Your task to perform on an android device: Add "lenovo thinkpad" to the cart on walmart Image 0: 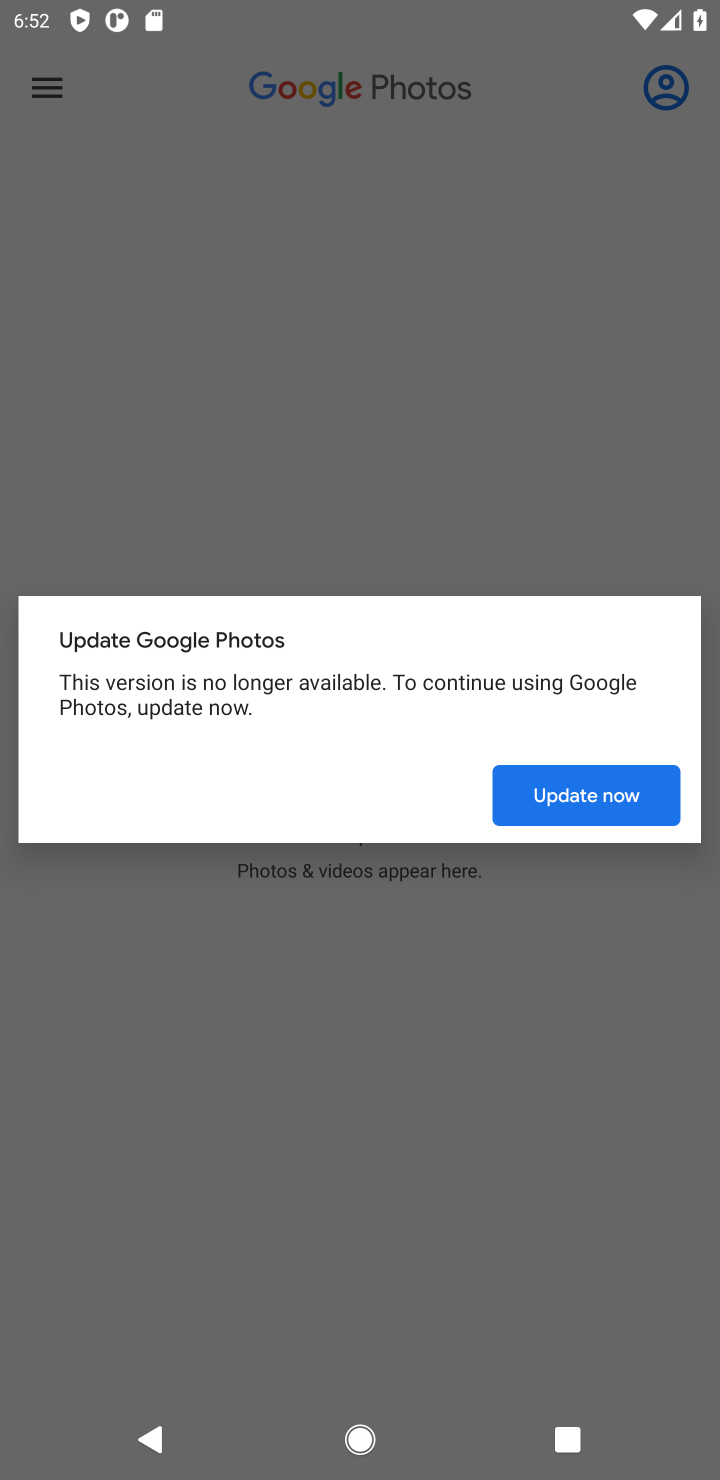
Step 0: press home button
Your task to perform on an android device: Add "lenovo thinkpad" to the cart on walmart Image 1: 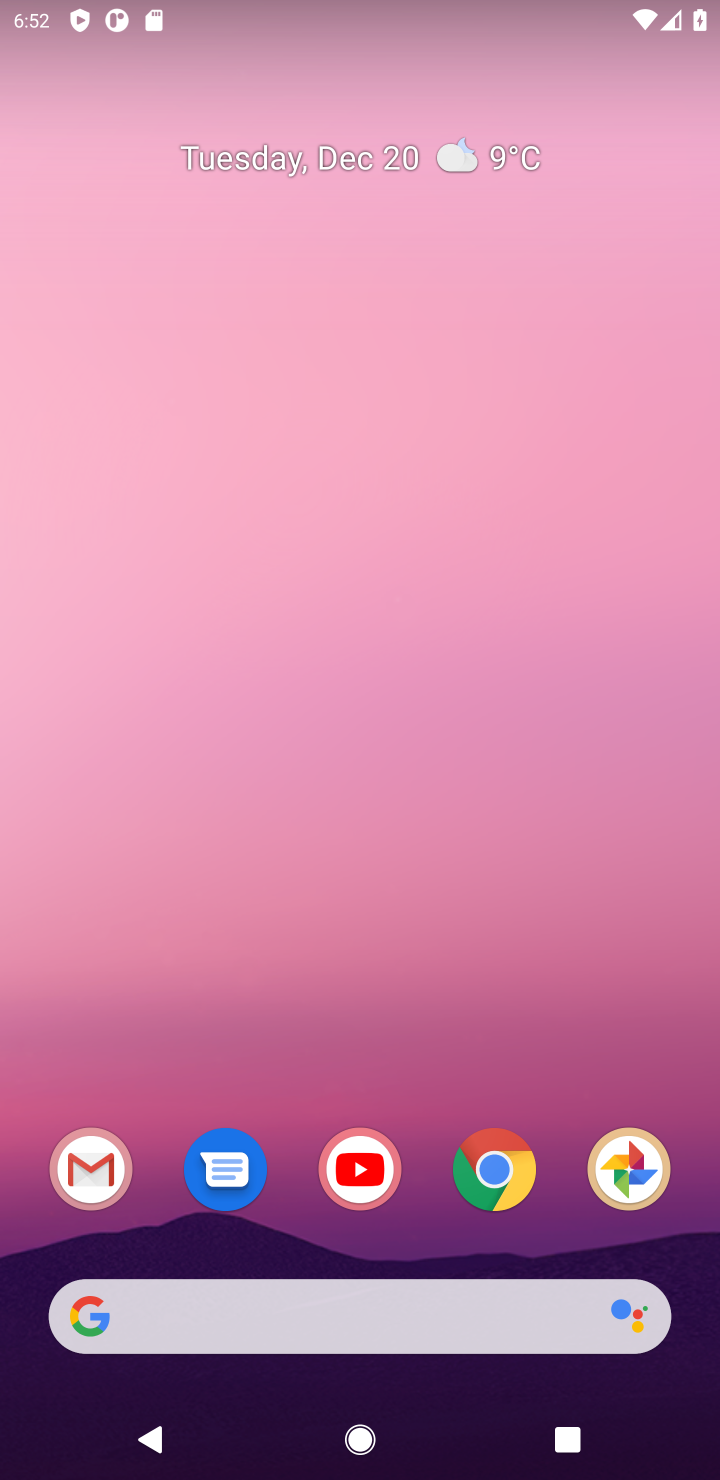
Step 1: click (510, 1208)
Your task to perform on an android device: Add "lenovo thinkpad" to the cart on walmart Image 2: 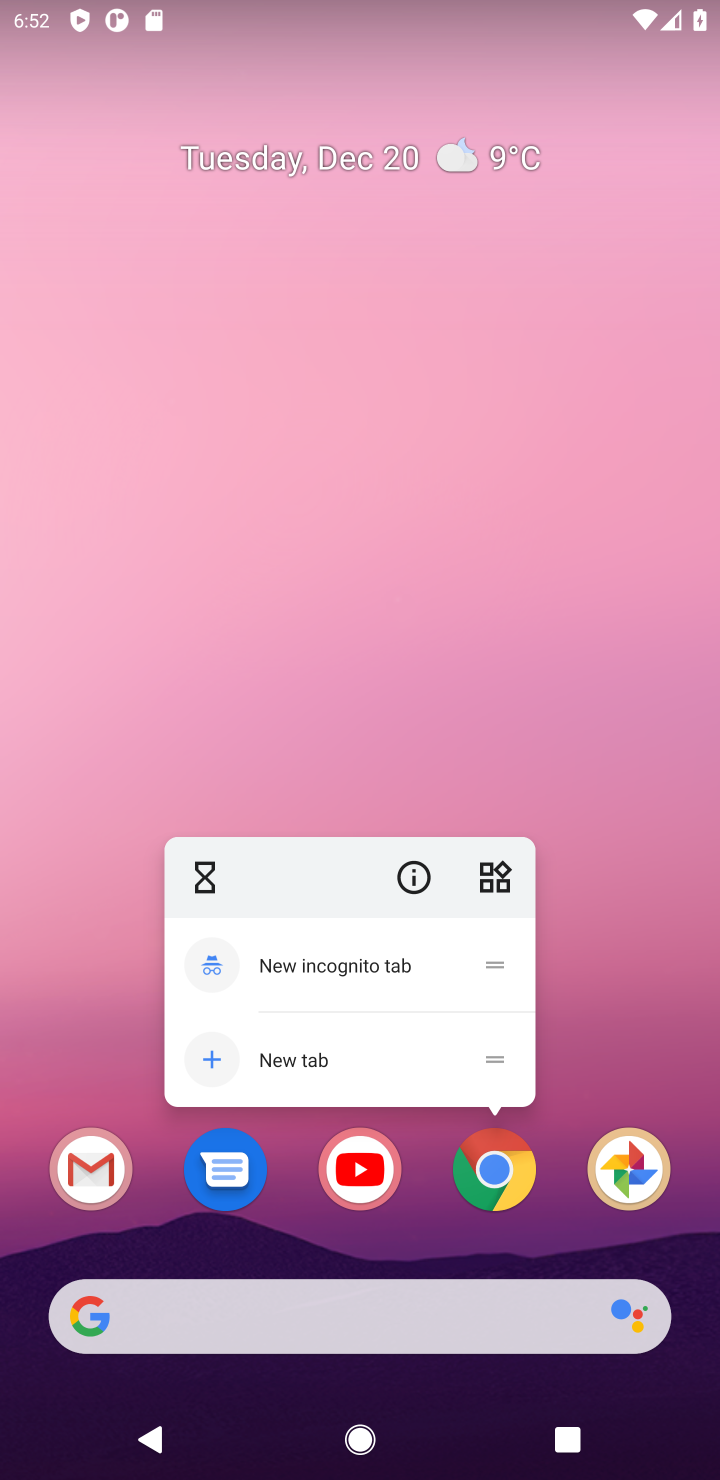
Step 2: click (480, 1171)
Your task to perform on an android device: Add "lenovo thinkpad" to the cart on walmart Image 3: 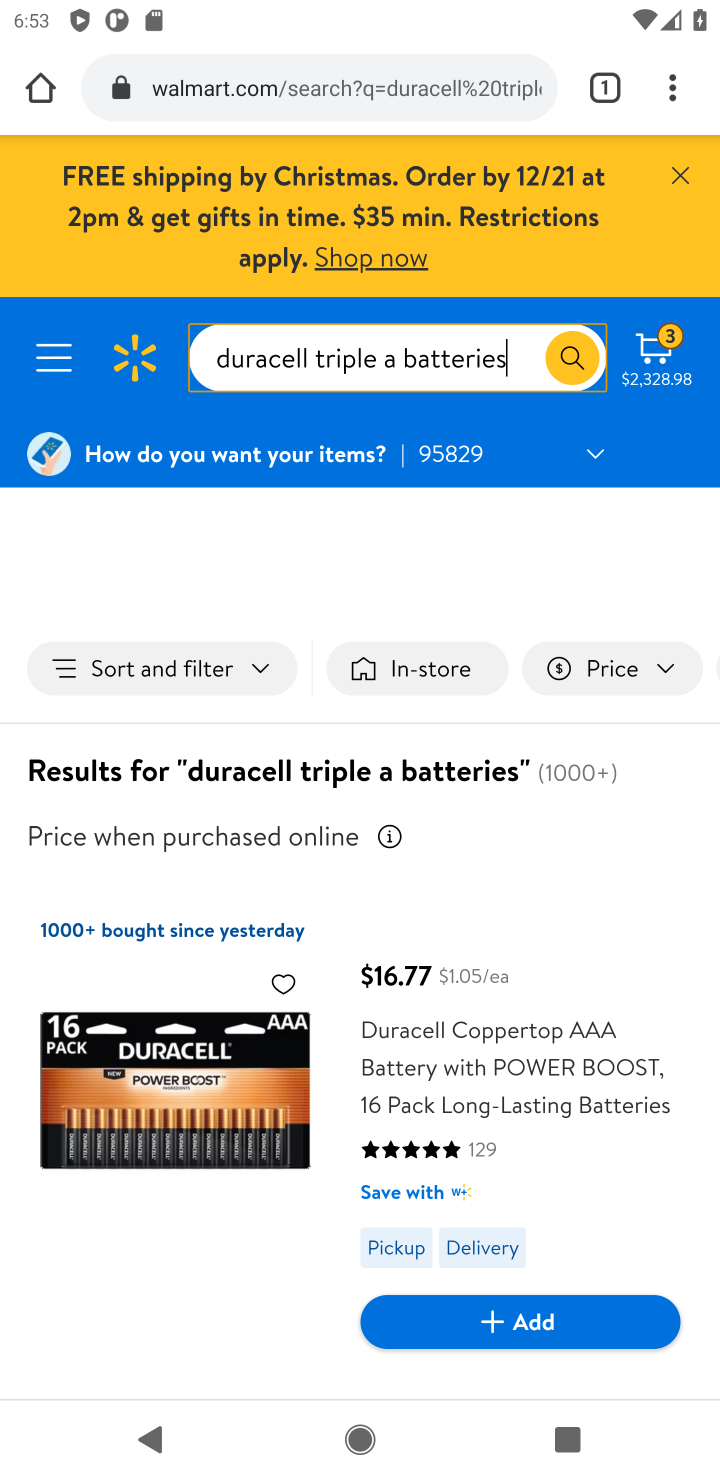
Step 3: click (449, 357)
Your task to perform on an android device: Add "lenovo thinkpad" to the cart on walmart Image 4: 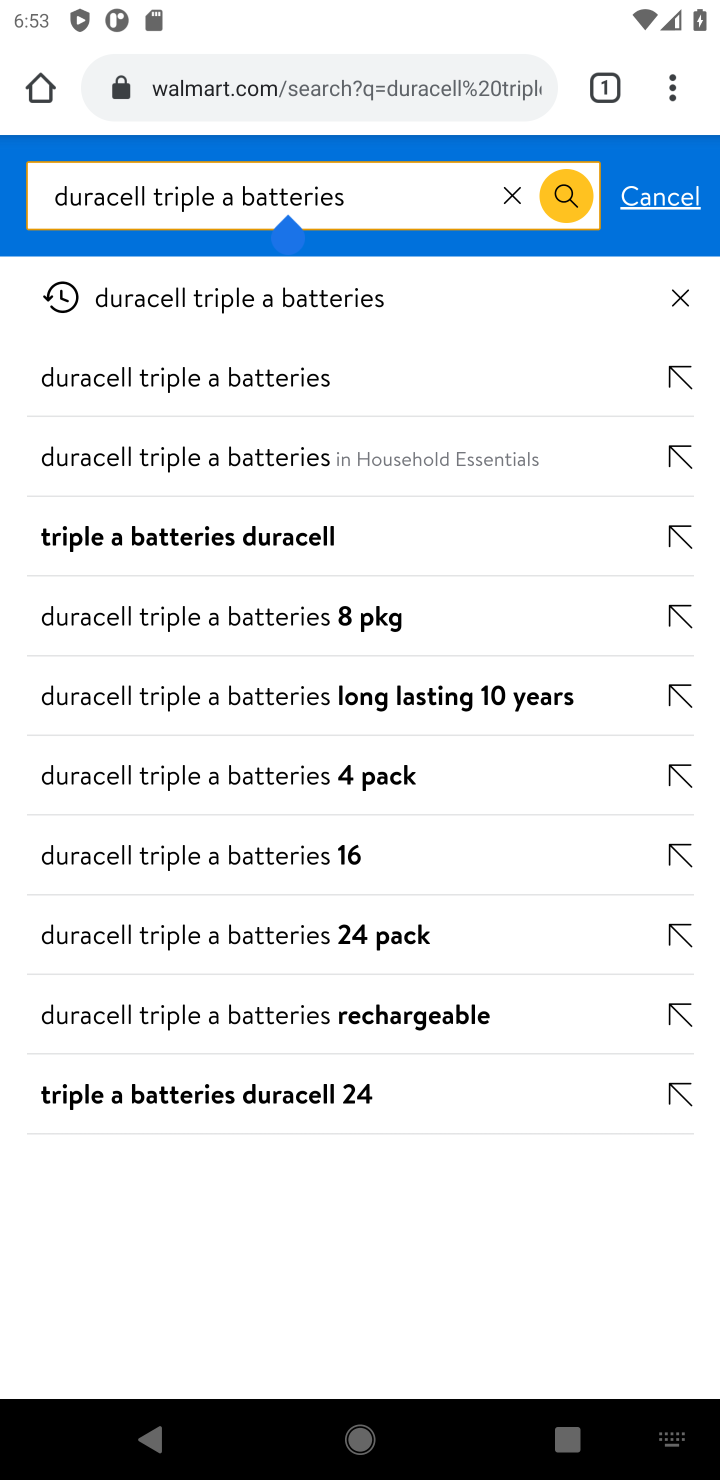
Step 4: click (499, 202)
Your task to perform on an android device: Add "lenovo thinkpad" to the cart on walmart Image 5: 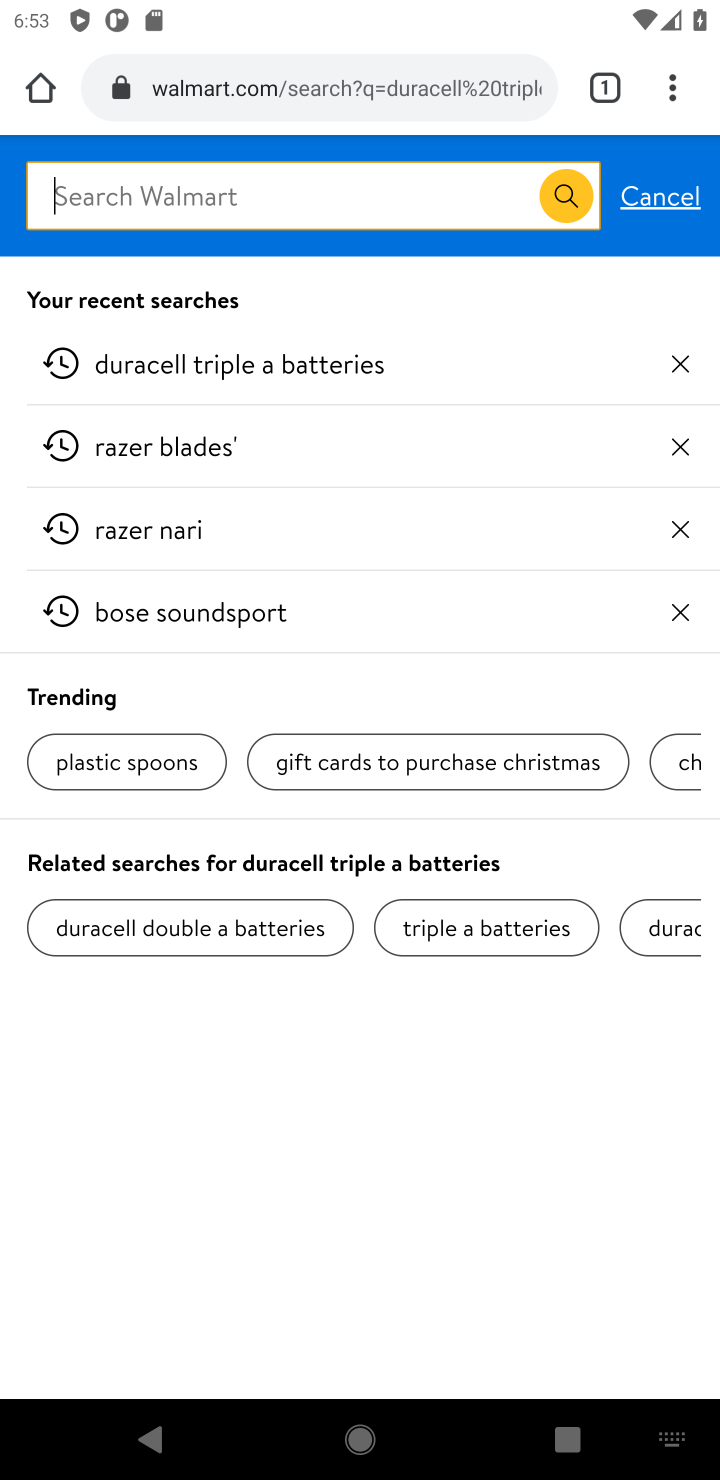
Step 5: type "lenovo thinkpad"
Your task to perform on an android device: Add "lenovo thinkpad" to the cart on walmart Image 6: 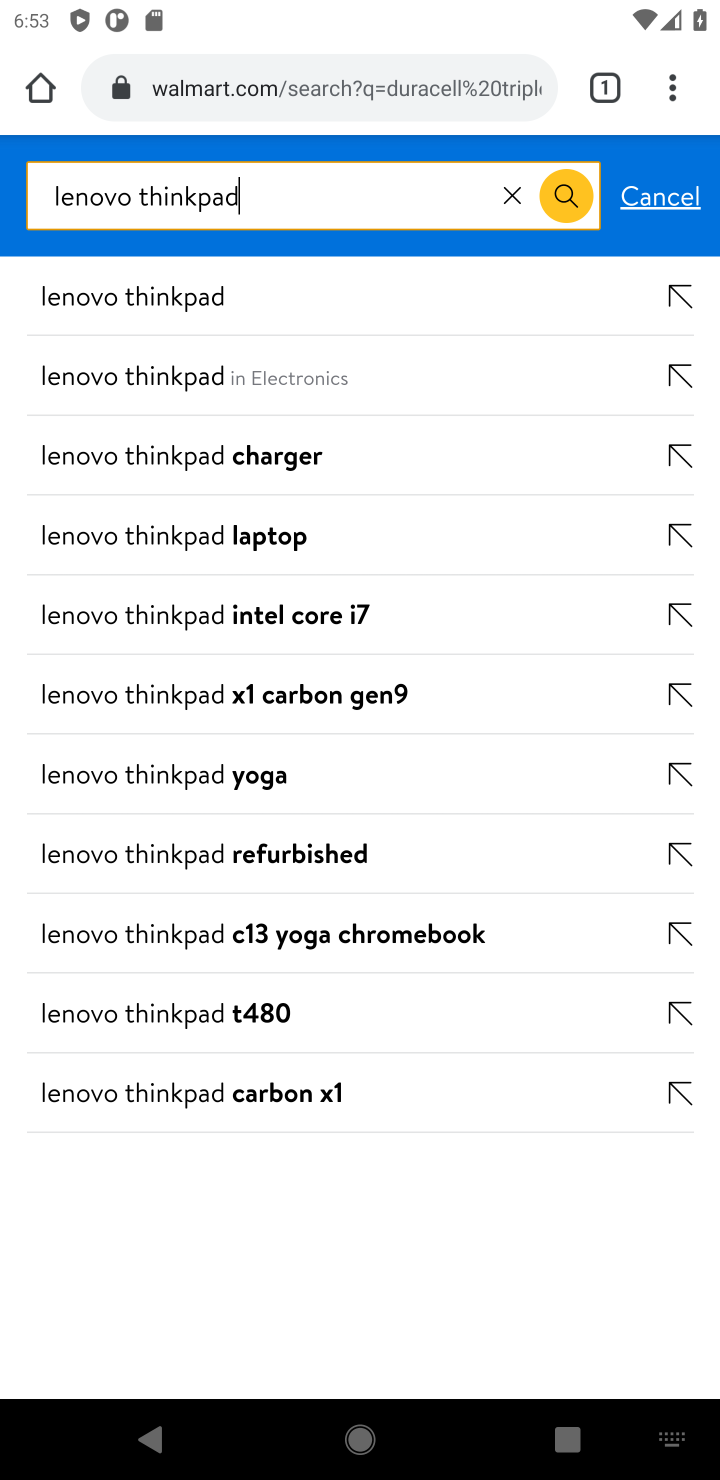
Step 6: click (187, 295)
Your task to perform on an android device: Add "lenovo thinkpad" to the cart on walmart Image 7: 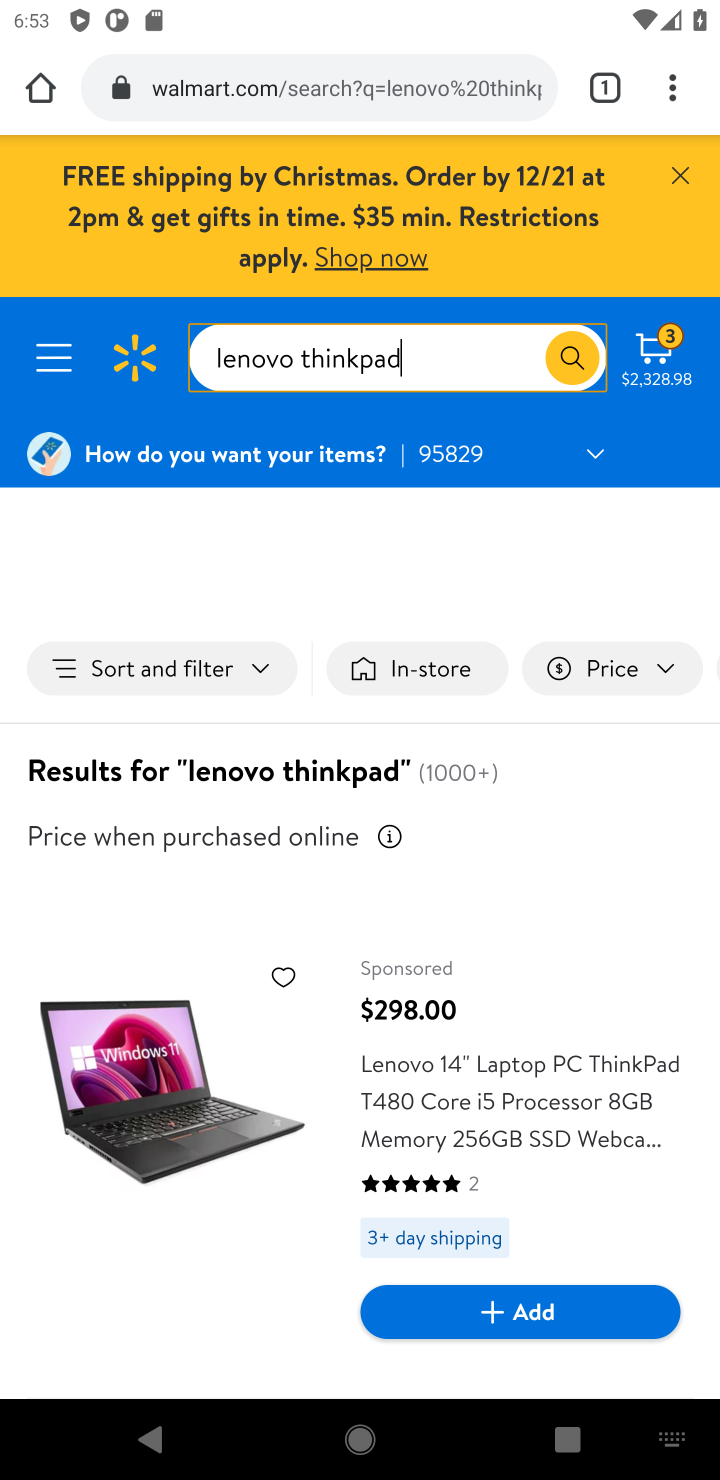
Step 7: click (557, 1333)
Your task to perform on an android device: Add "lenovo thinkpad" to the cart on walmart Image 8: 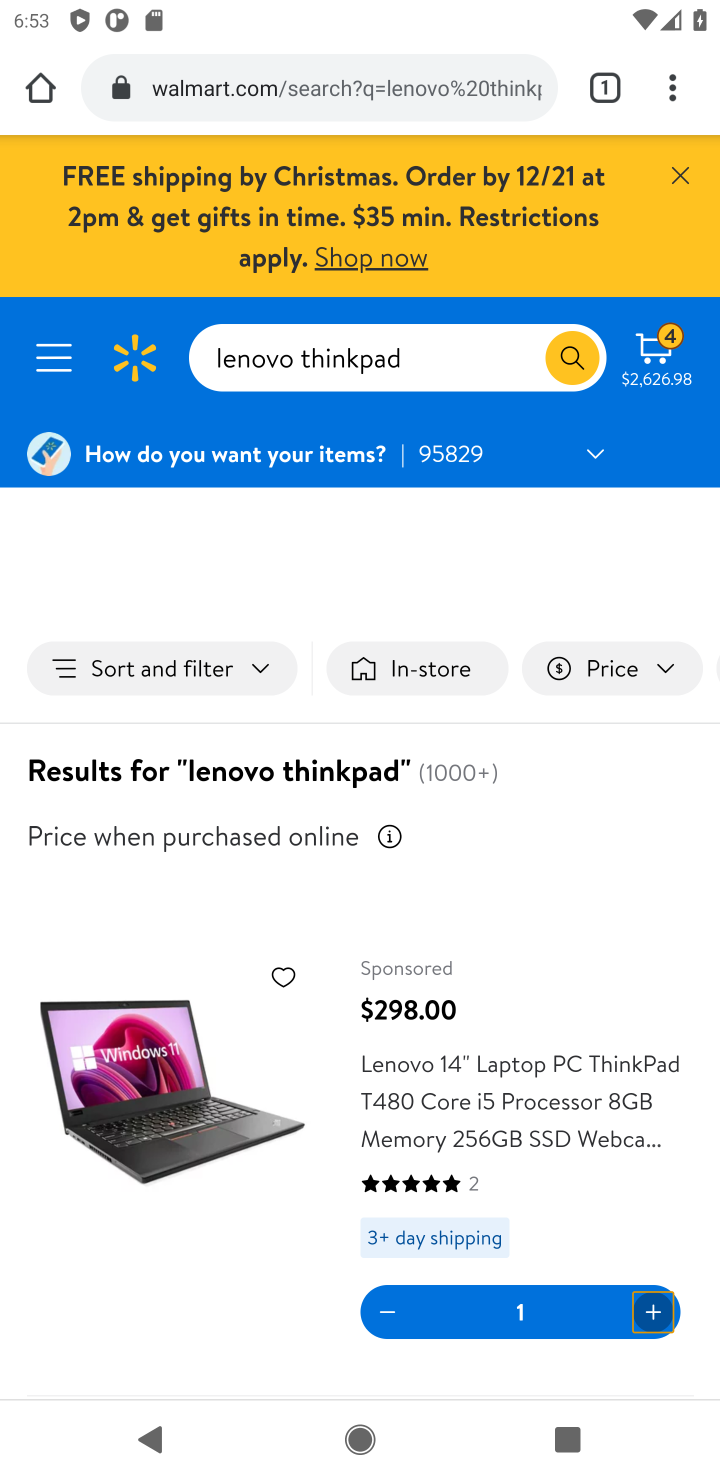
Step 8: task complete